Your task to perform on an android device: Go to CNN.com Image 0: 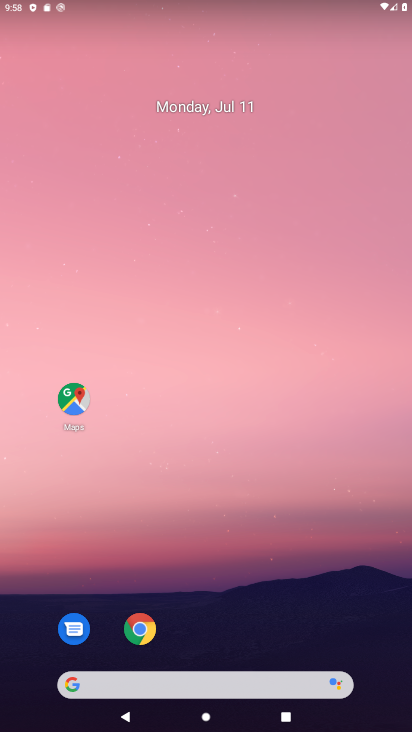
Step 0: click (158, 628)
Your task to perform on an android device: Go to CNN.com Image 1: 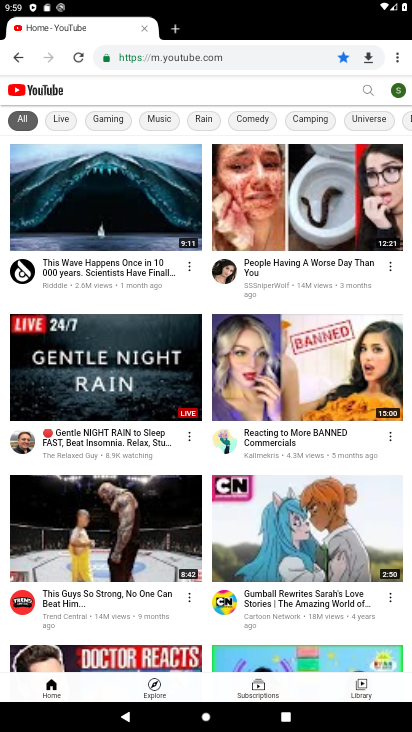
Step 1: click (254, 58)
Your task to perform on an android device: Go to CNN.com Image 2: 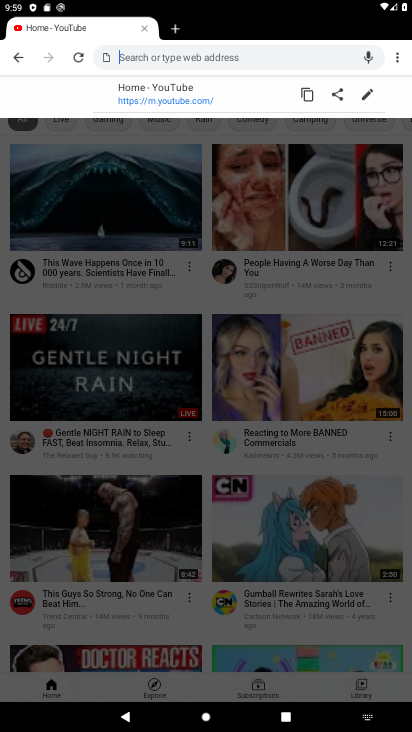
Step 2: type "cnn.com"
Your task to perform on an android device: Go to CNN.com Image 3: 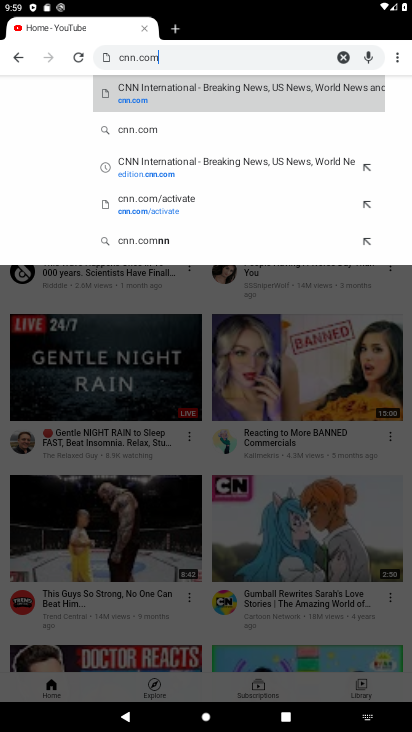
Step 3: click (256, 95)
Your task to perform on an android device: Go to CNN.com Image 4: 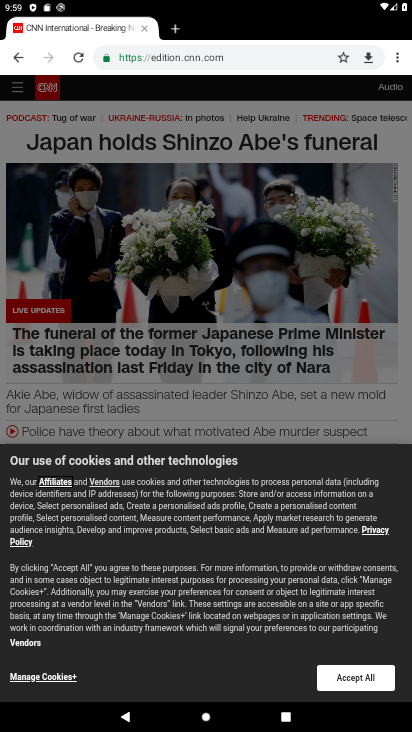
Step 4: task complete